Your task to perform on an android device: Open privacy settings Image 0: 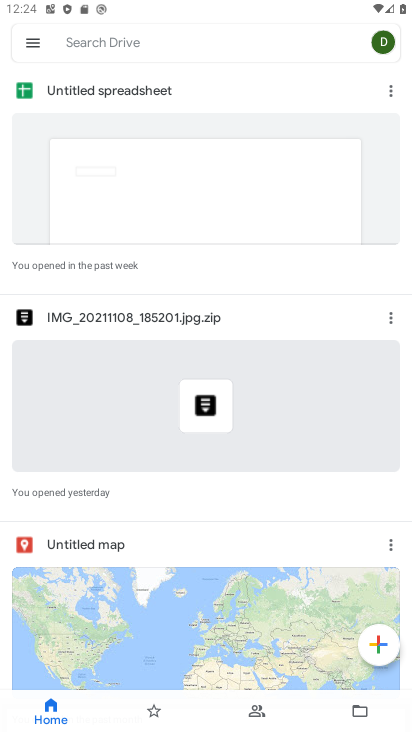
Step 0: press home button
Your task to perform on an android device: Open privacy settings Image 1: 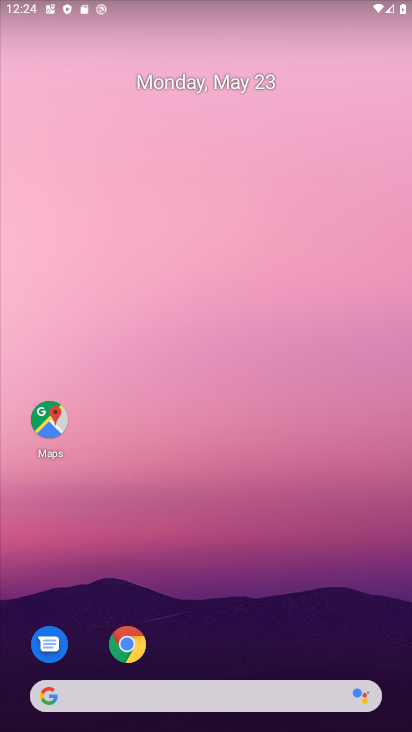
Step 1: drag from (267, 673) to (254, 18)
Your task to perform on an android device: Open privacy settings Image 2: 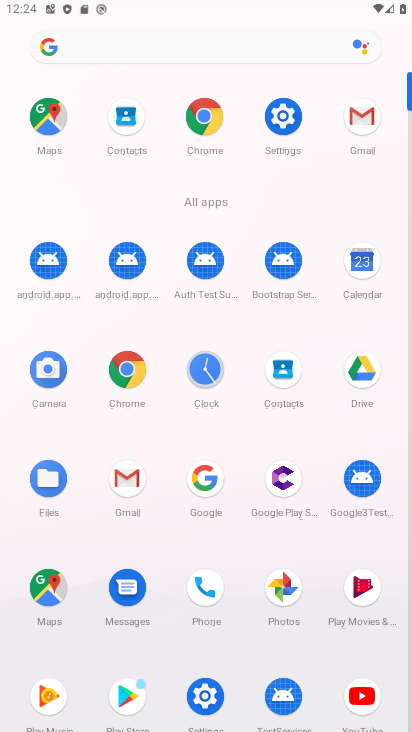
Step 2: click (283, 123)
Your task to perform on an android device: Open privacy settings Image 3: 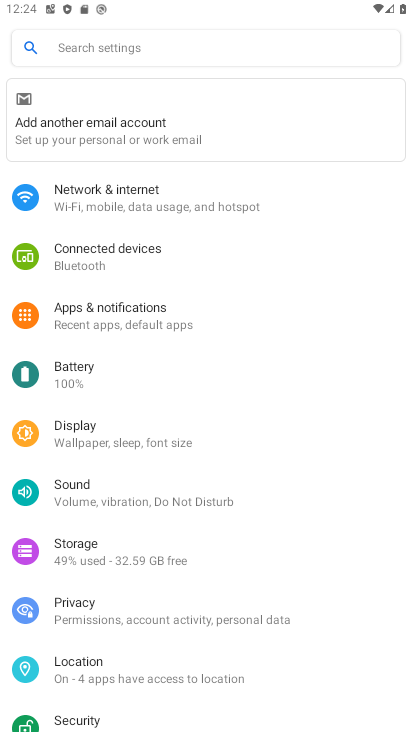
Step 3: click (114, 606)
Your task to perform on an android device: Open privacy settings Image 4: 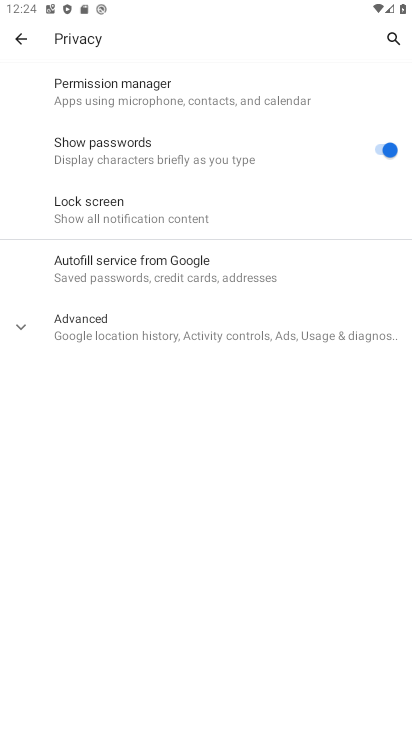
Step 4: task complete